Your task to perform on an android device: turn off airplane mode Image 0: 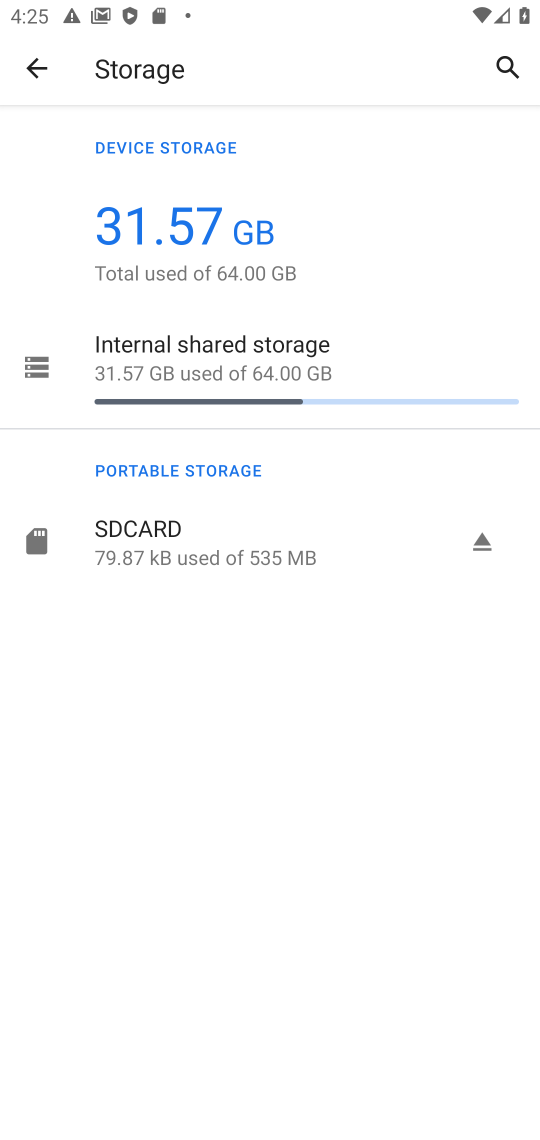
Step 0: press home button
Your task to perform on an android device: turn off airplane mode Image 1: 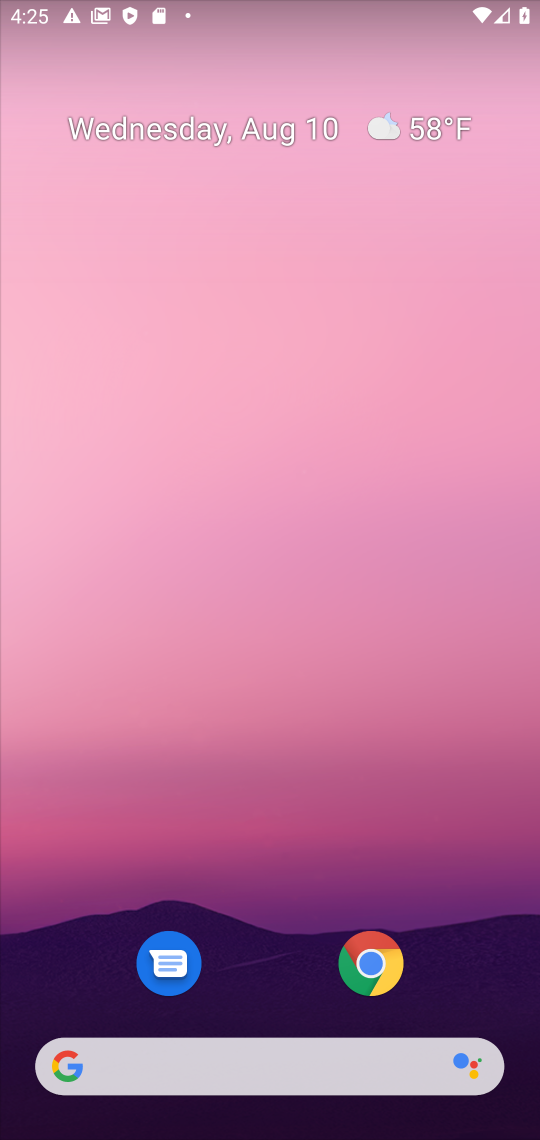
Step 1: task complete